Your task to perform on an android device: Search for "usb-b" on bestbuy, select the first entry, add it to the cart, then select checkout. Image 0: 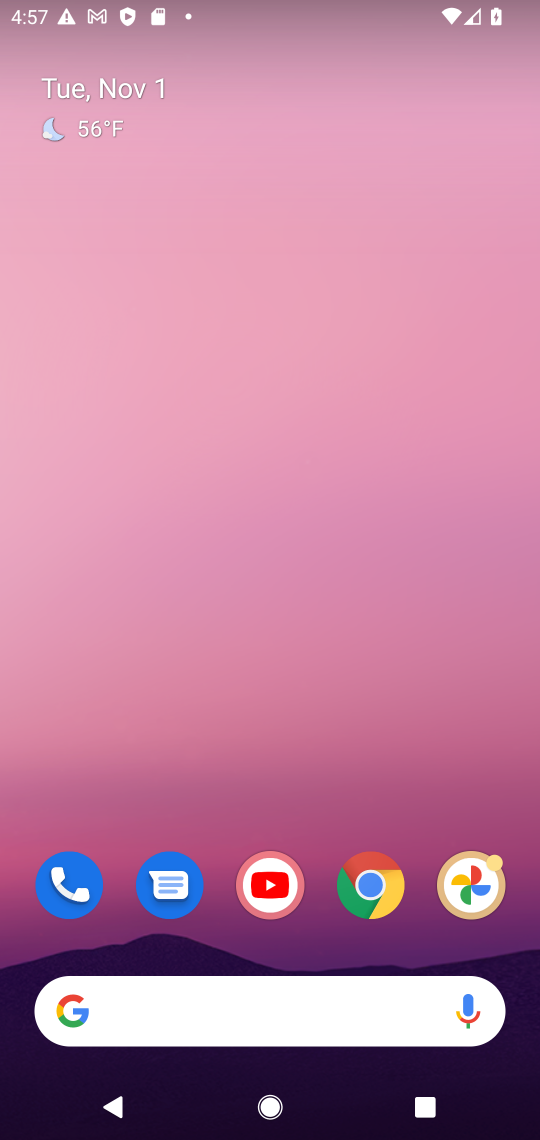
Step 0: click (363, 886)
Your task to perform on an android device: Search for "usb-b" on bestbuy, select the first entry, add it to the cart, then select checkout. Image 1: 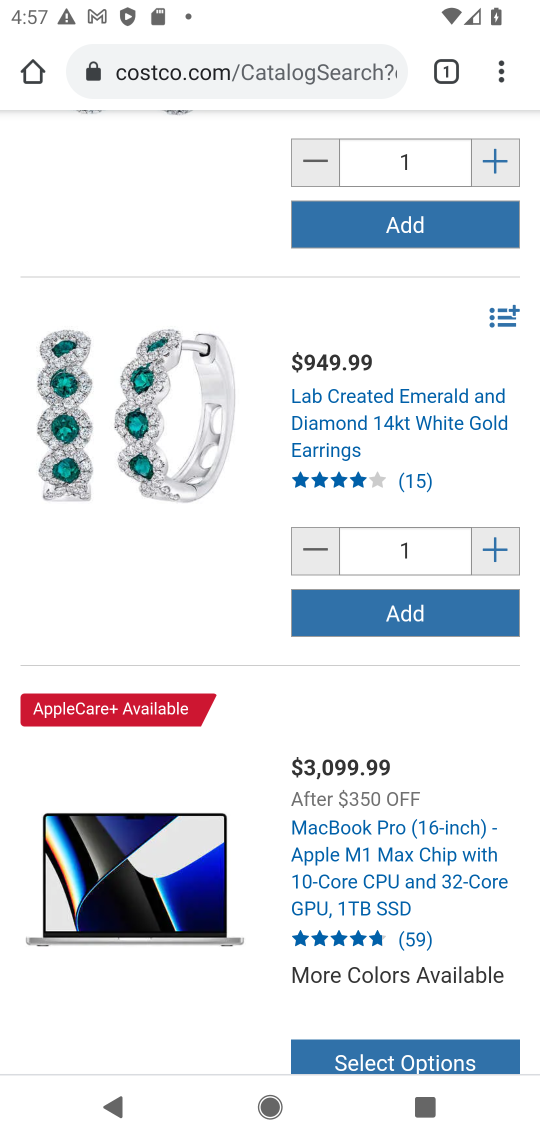
Step 1: click (219, 47)
Your task to perform on an android device: Search for "usb-b" on bestbuy, select the first entry, add it to the cart, then select checkout. Image 2: 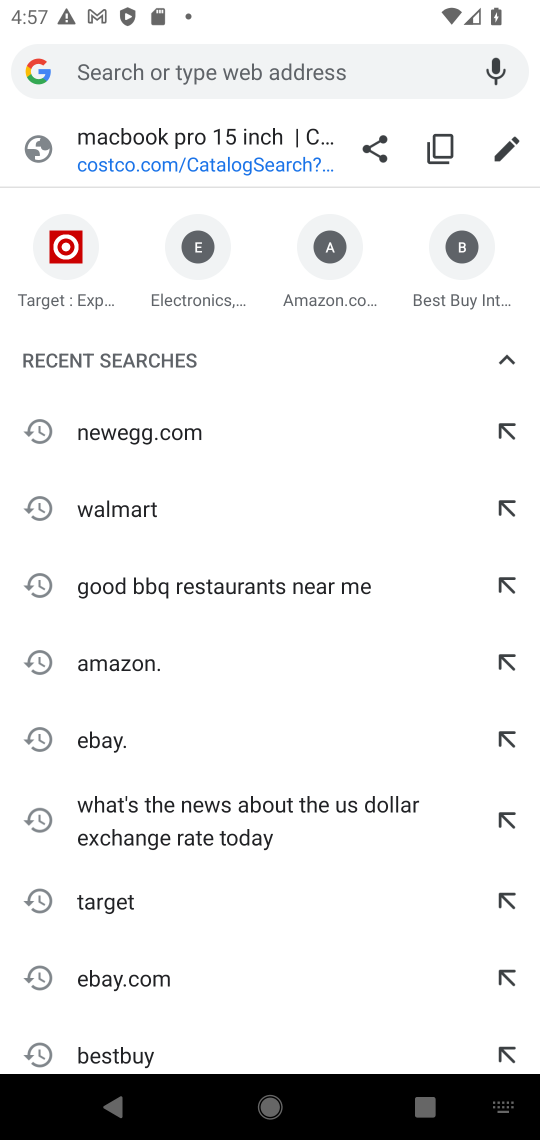
Step 2: type "bestbuy"
Your task to perform on an android device: Search for "usb-b" on bestbuy, select the first entry, add it to the cart, then select checkout. Image 3: 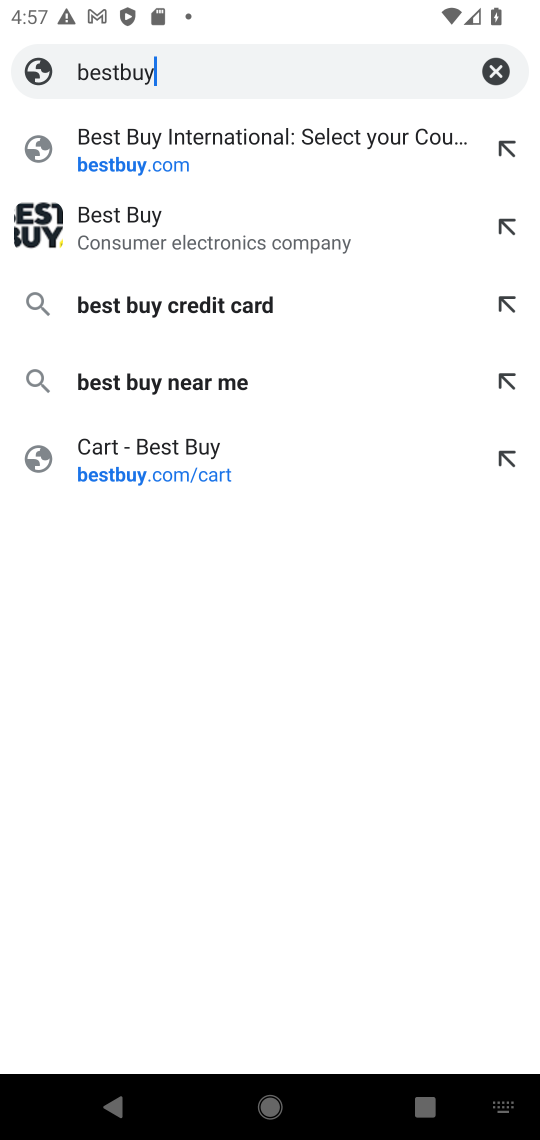
Step 3: click (174, 132)
Your task to perform on an android device: Search for "usb-b" on bestbuy, select the first entry, add it to the cart, then select checkout. Image 4: 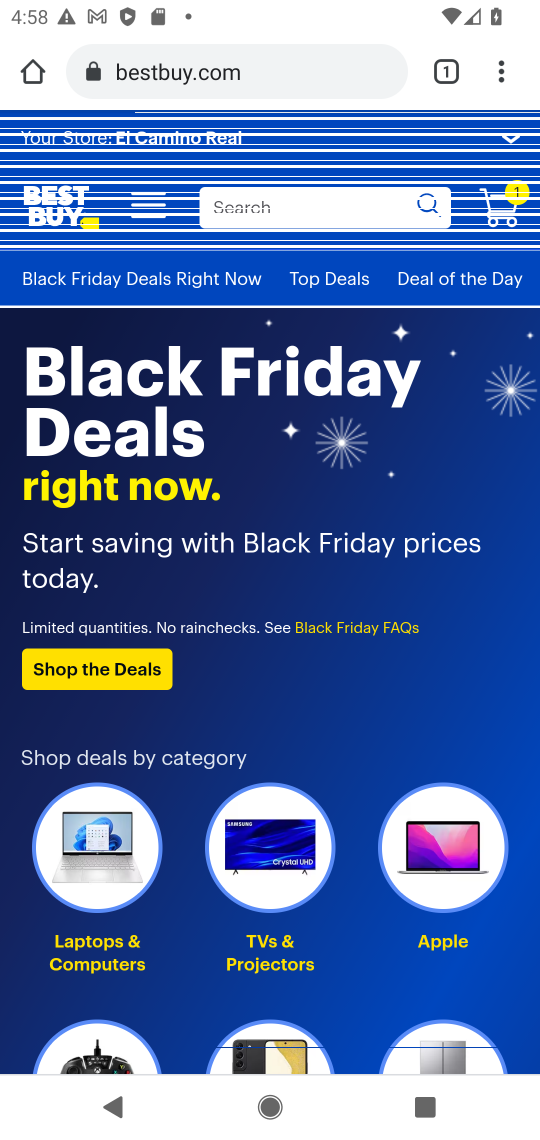
Step 4: click (259, 203)
Your task to perform on an android device: Search for "usb-b" on bestbuy, select the first entry, add it to the cart, then select checkout. Image 5: 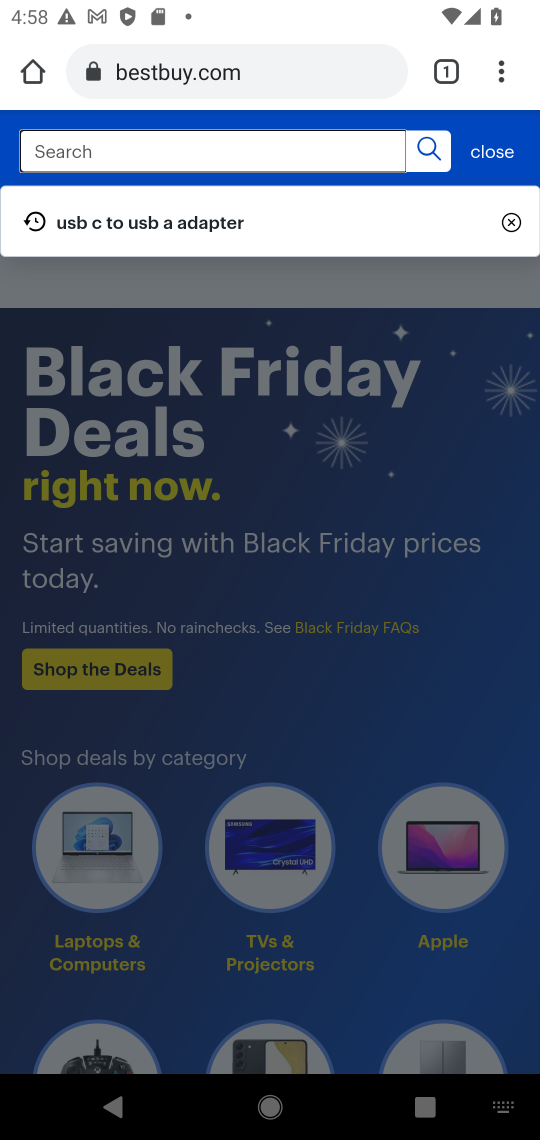
Step 5: type "usb-b"
Your task to perform on an android device: Search for "usb-b" on bestbuy, select the first entry, add it to the cart, then select checkout. Image 6: 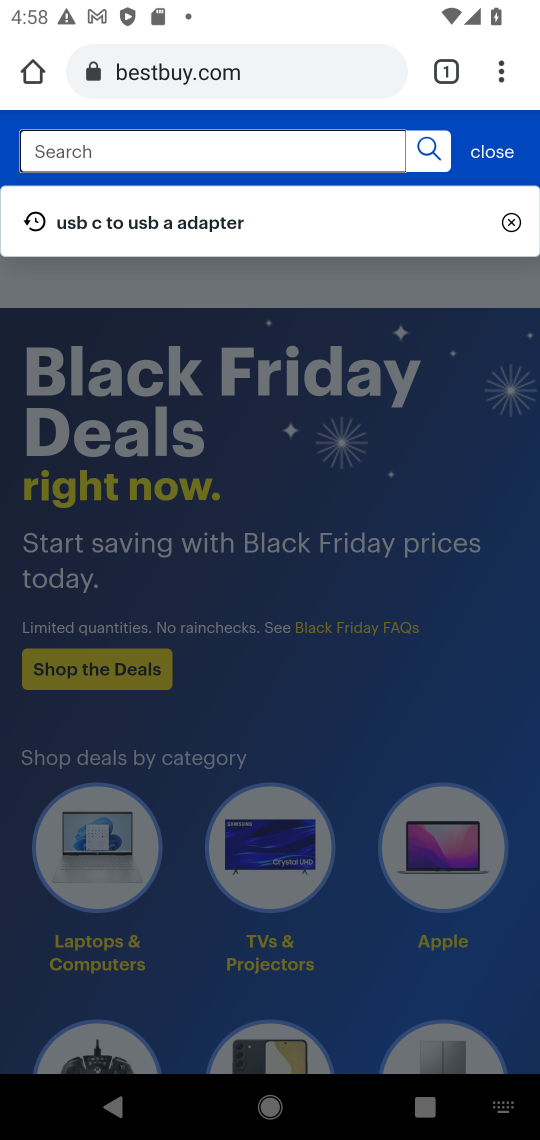
Step 6: click (158, 212)
Your task to perform on an android device: Search for "usb-b" on bestbuy, select the first entry, add it to the cart, then select checkout. Image 7: 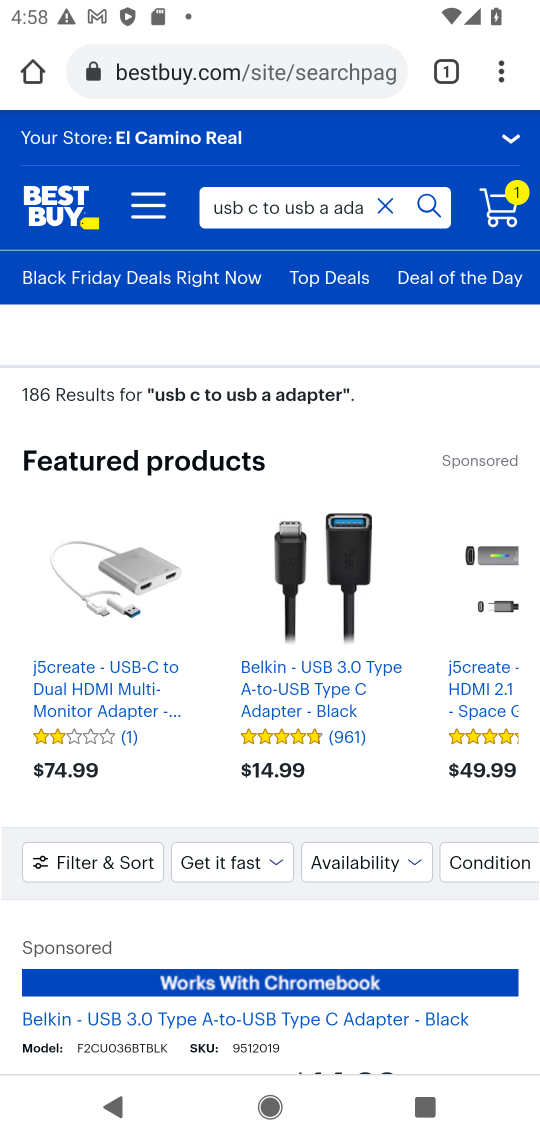
Step 7: drag from (294, 905) to (243, 220)
Your task to perform on an android device: Search for "usb-b" on bestbuy, select the first entry, add it to the cart, then select checkout. Image 8: 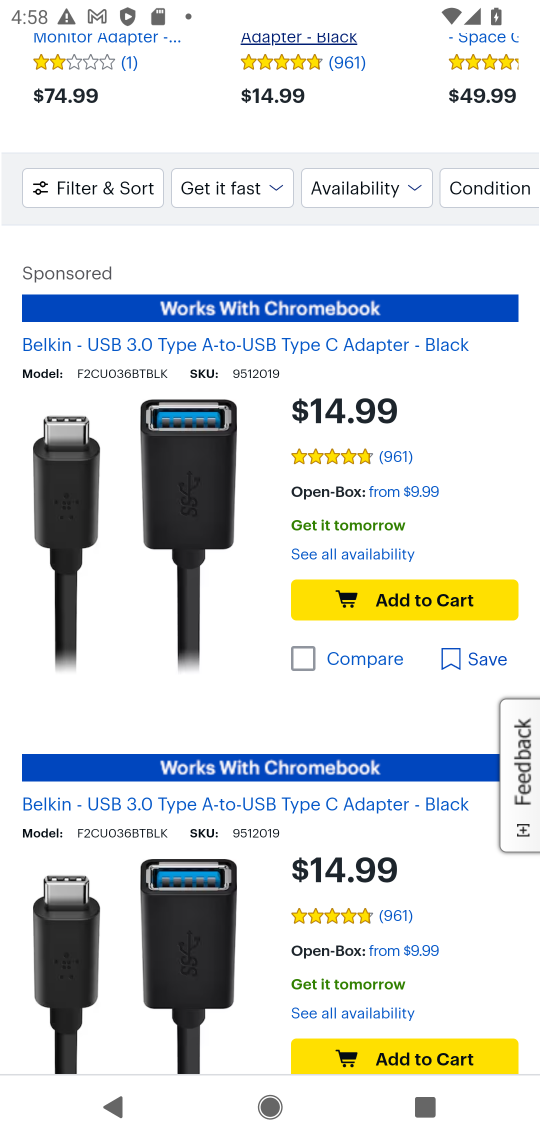
Step 8: click (377, 604)
Your task to perform on an android device: Search for "usb-b" on bestbuy, select the first entry, add it to the cart, then select checkout. Image 9: 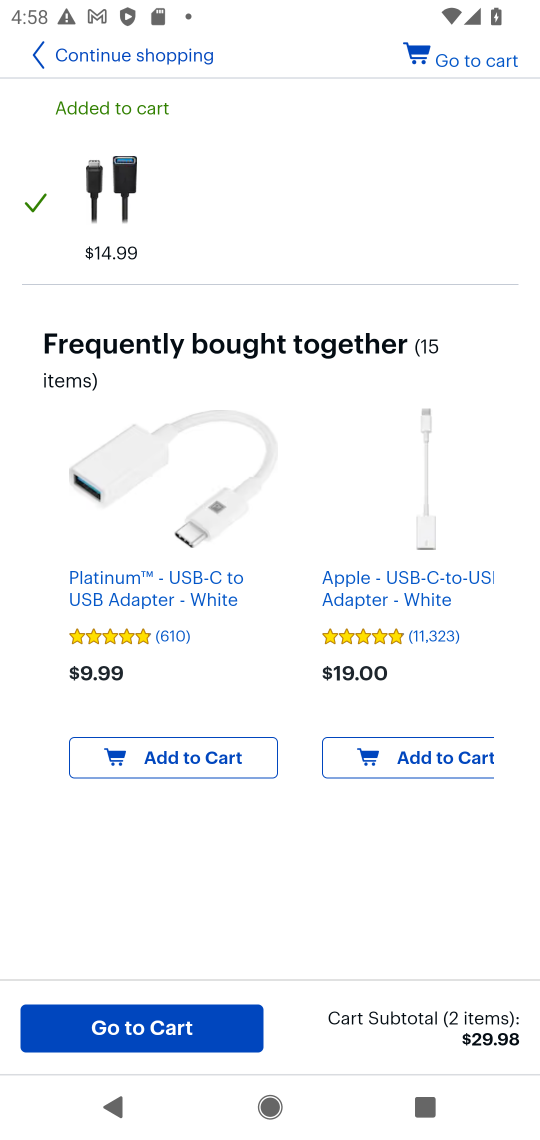
Step 9: click (128, 1025)
Your task to perform on an android device: Search for "usb-b" on bestbuy, select the first entry, add it to the cart, then select checkout. Image 10: 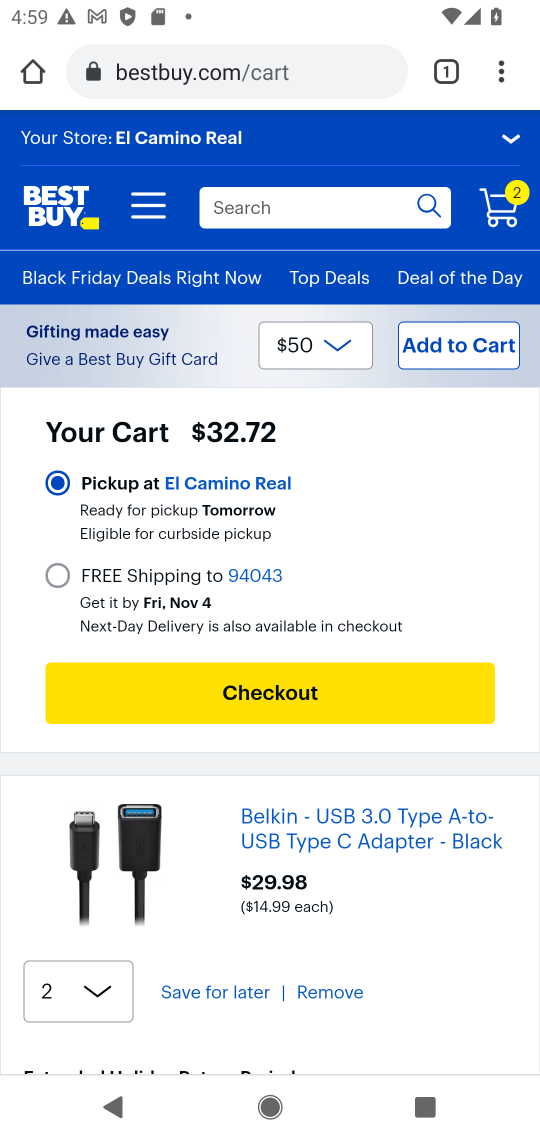
Step 10: click (264, 686)
Your task to perform on an android device: Search for "usb-b" on bestbuy, select the first entry, add it to the cart, then select checkout. Image 11: 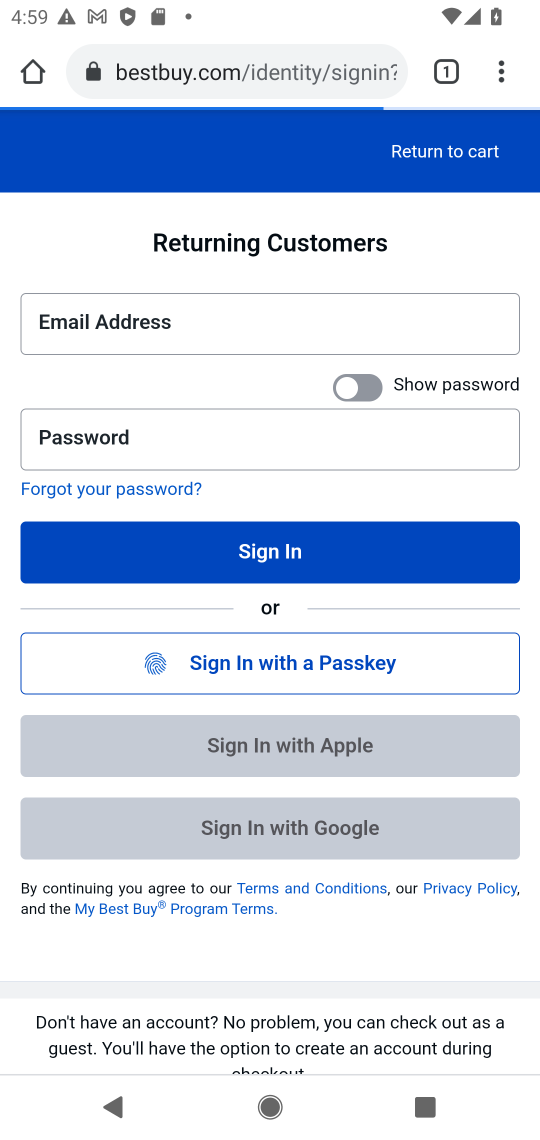
Step 11: task complete